Your task to perform on an android device: Search for "panasonic triple a" on walmart.com, select the first entry, add it to the cart, then select checkout. Image 0: 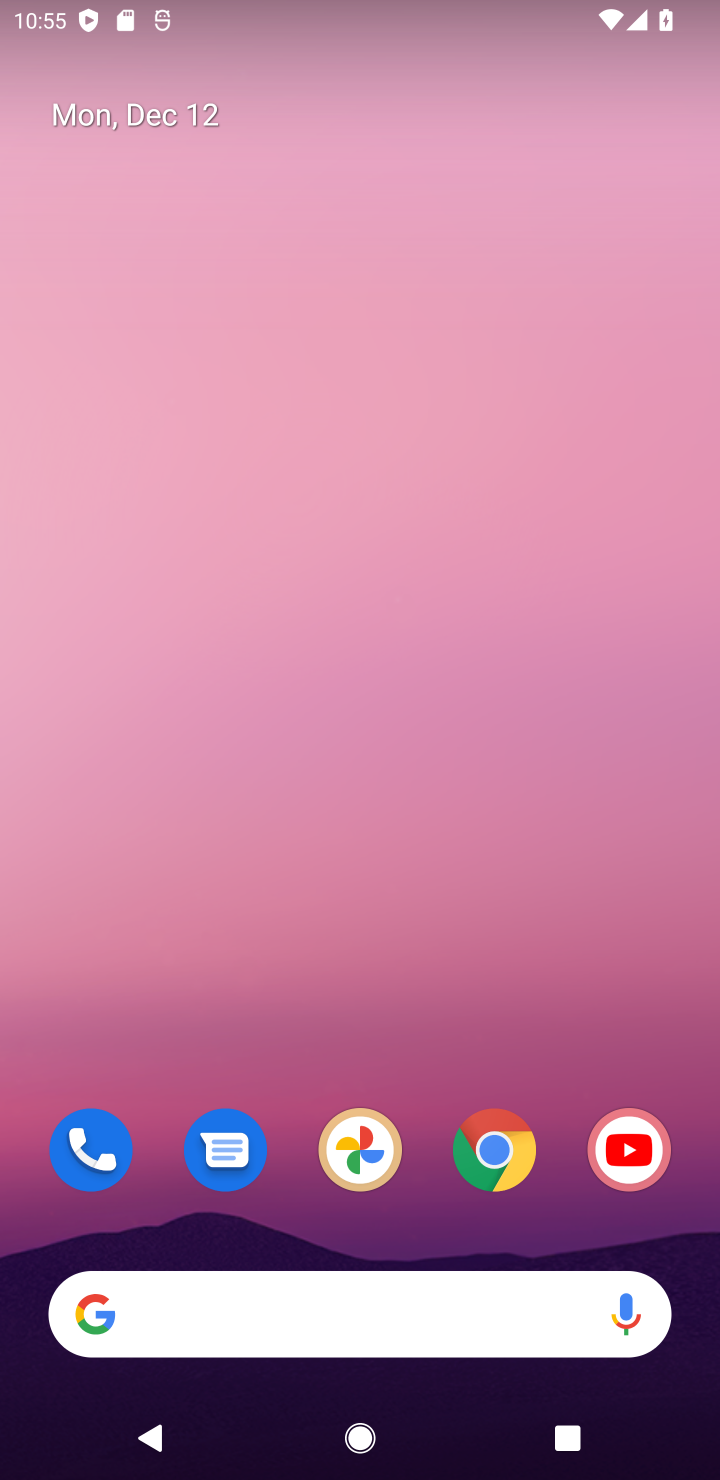
Step 0: click (498, 1161)
Your task to perform on an android device: Search for "panasonic triple a" on walmart.com, select the first entry, add it to the cart, then select checkout. Image 1: 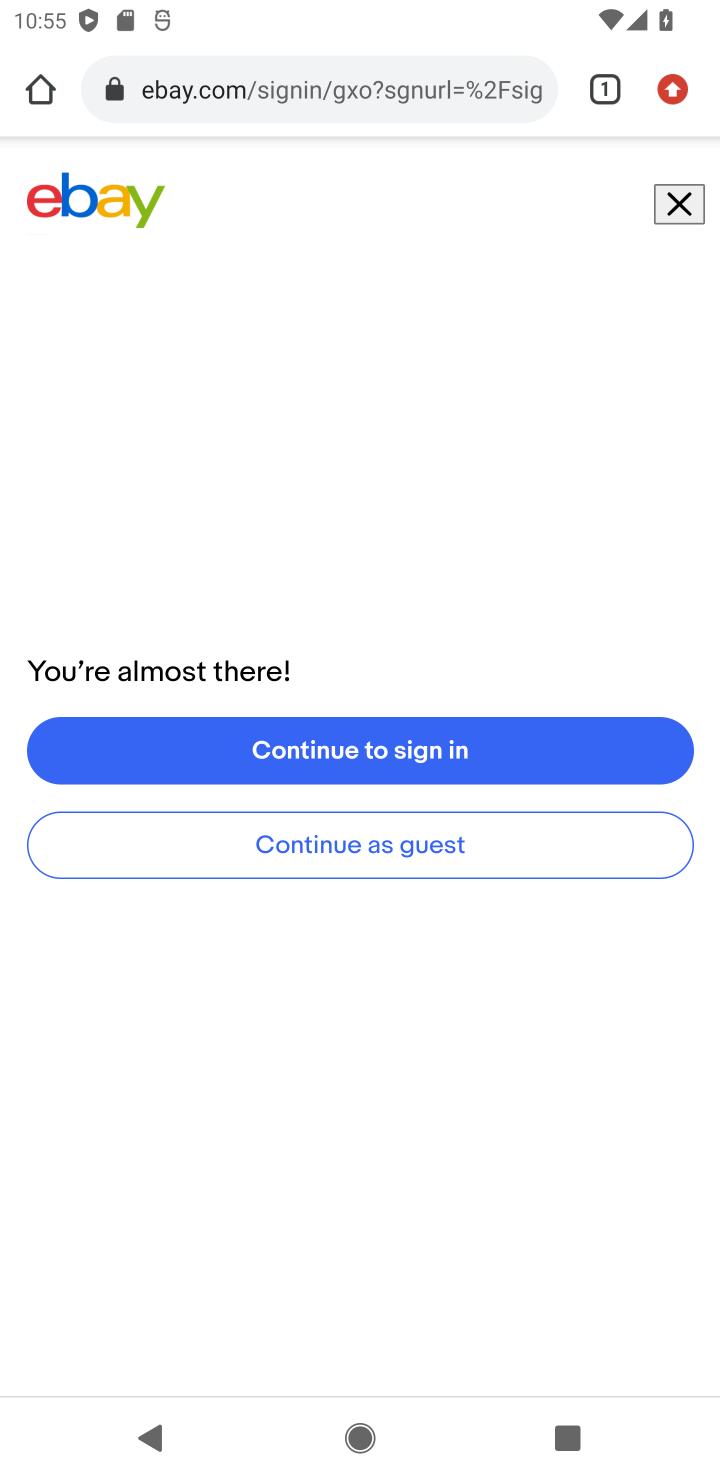
Step 1: click (251, 86)
Your task to perform on an android device: Search for "panasonic triple a" on walmart.com, select the first entry, add it to the cart, then select checkout. Image 2: 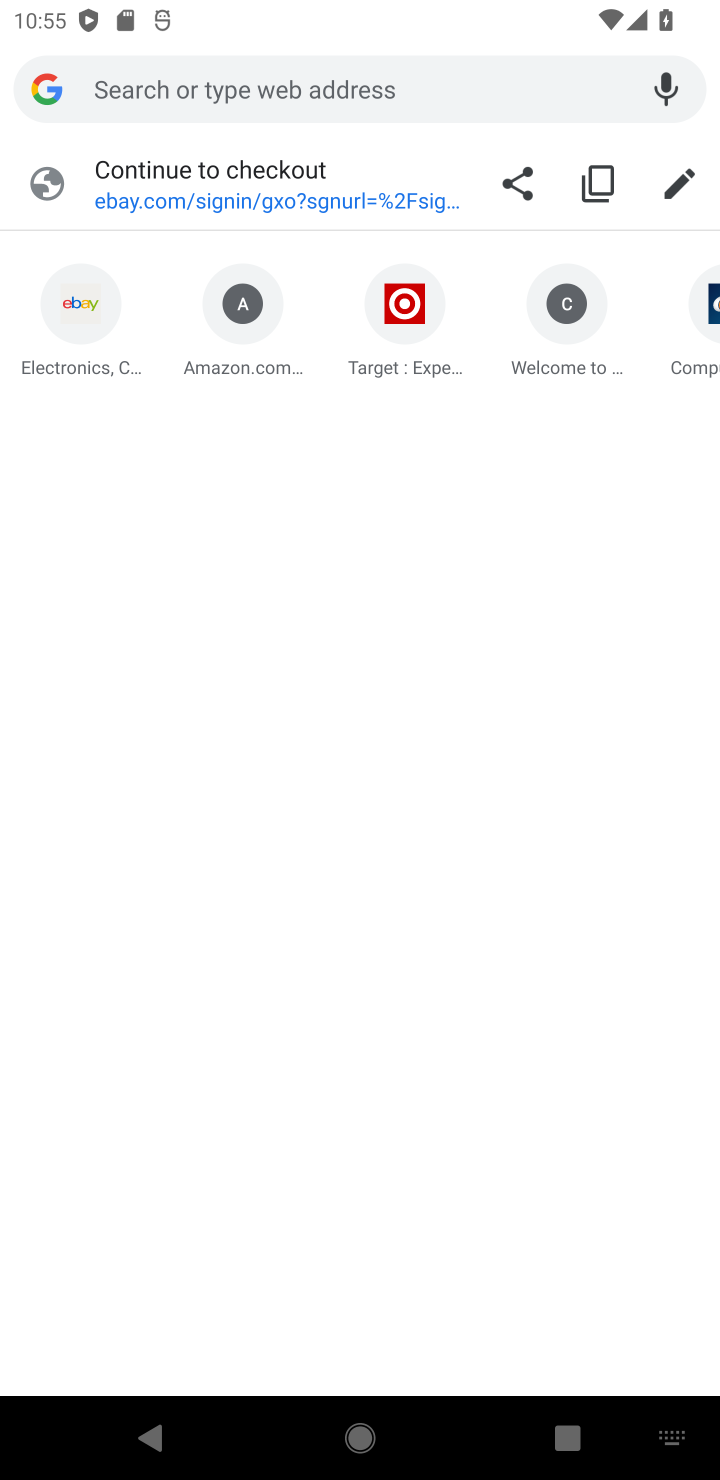
Step 2: type "walmart.com"
Your task to perform on an android device: Search for "panasonic triple a" on walmart.com, select the first entry, add it to the cart, then select checkout. Image 3: 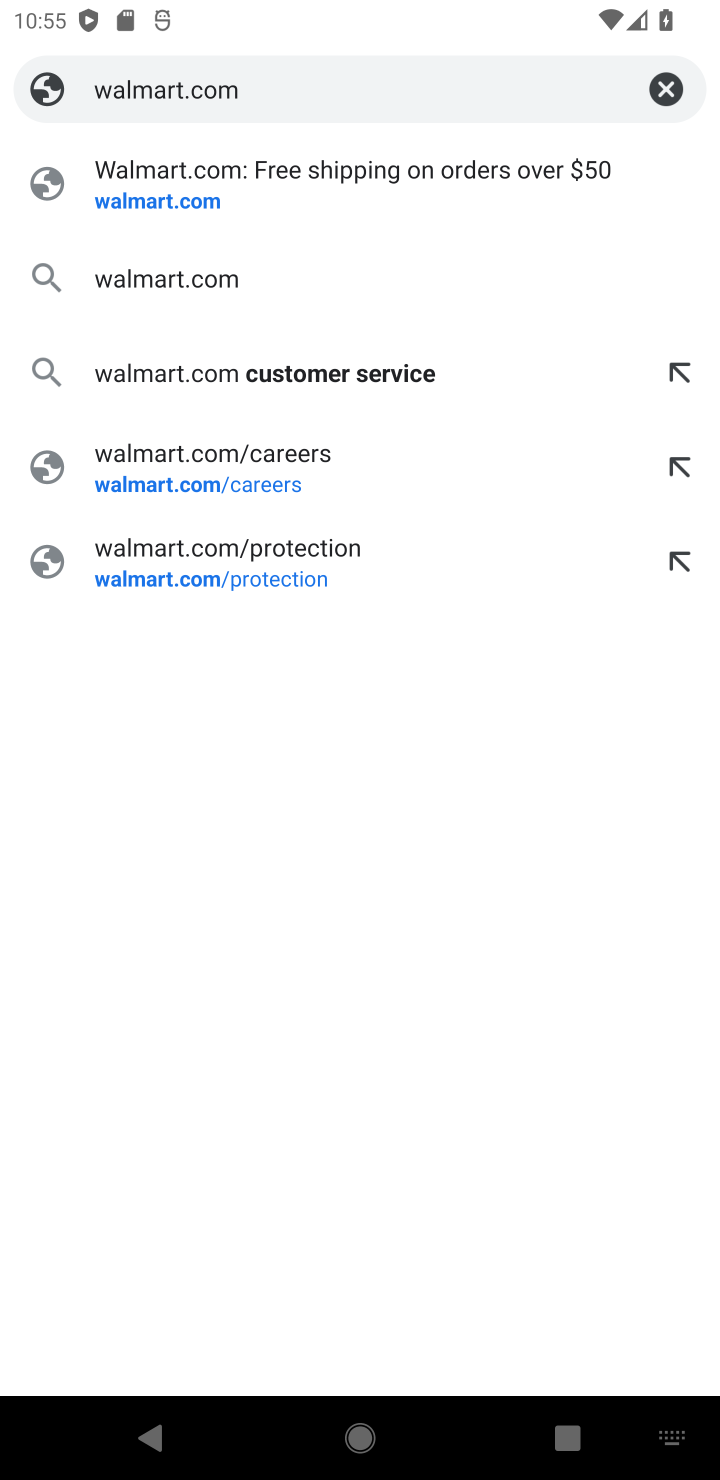
Step 3: click (146, 210)
Your task to perform on an android device: Search for "panasonic triple a" on walmart.com, select the first entry, add it to the cart, then select checkout. Image 4: 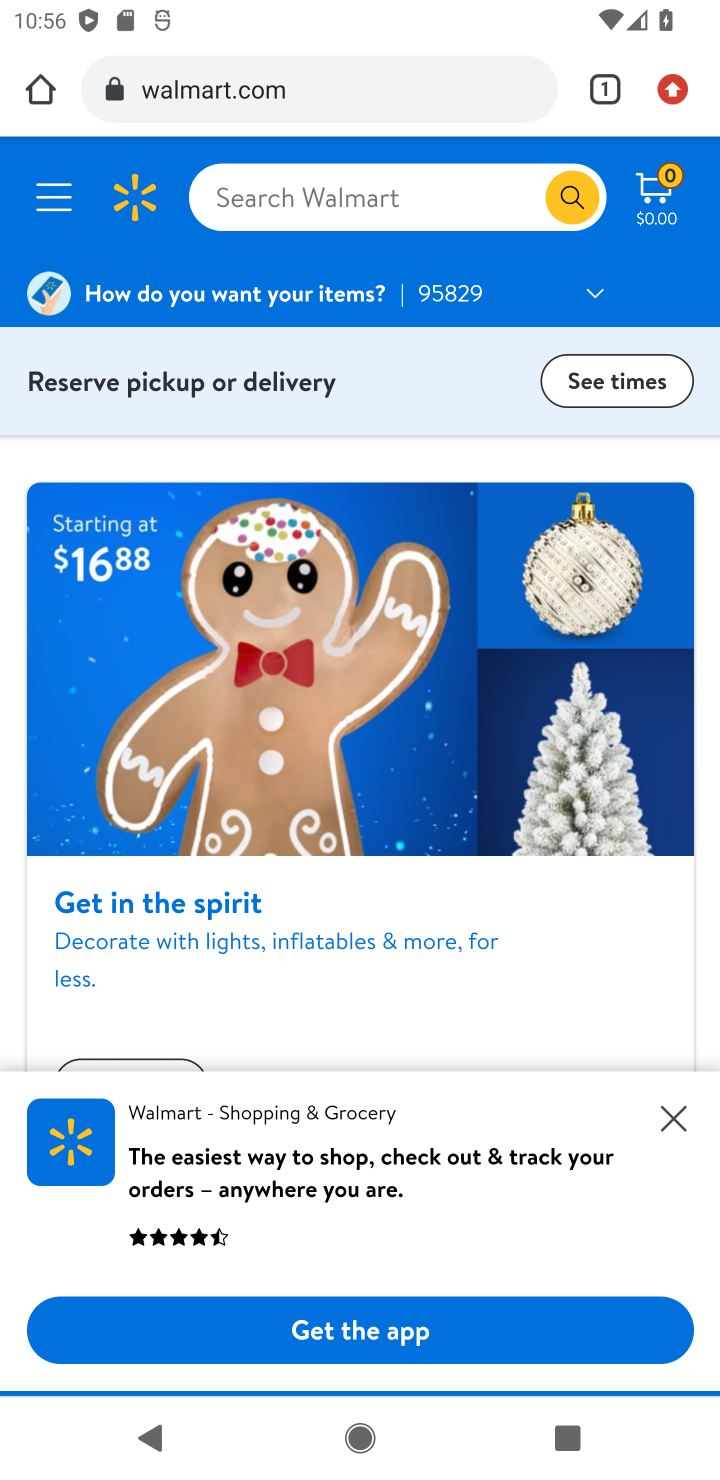
Step 4: click (277, 193)
Your task to perform on an android device: Search for "panasonic triple a" on walmart.com, select the first entry, add it to the cart, then select checkout. Image 5: 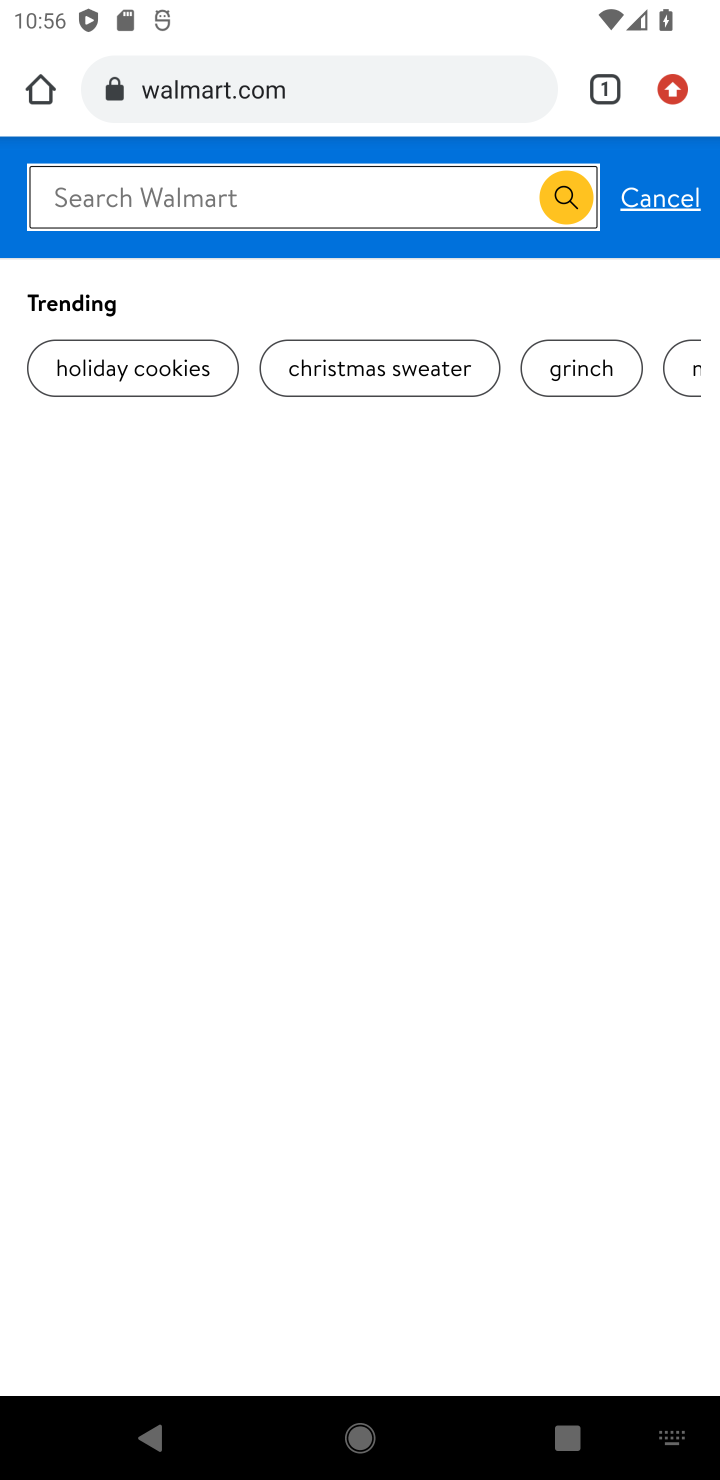
Step 5: type "panasonic triple a"
Your task to perform on an android device: Search for "panasonic triple a" on walmart.com, select the first entry, add it to the cart, then select checkout. Image 6: 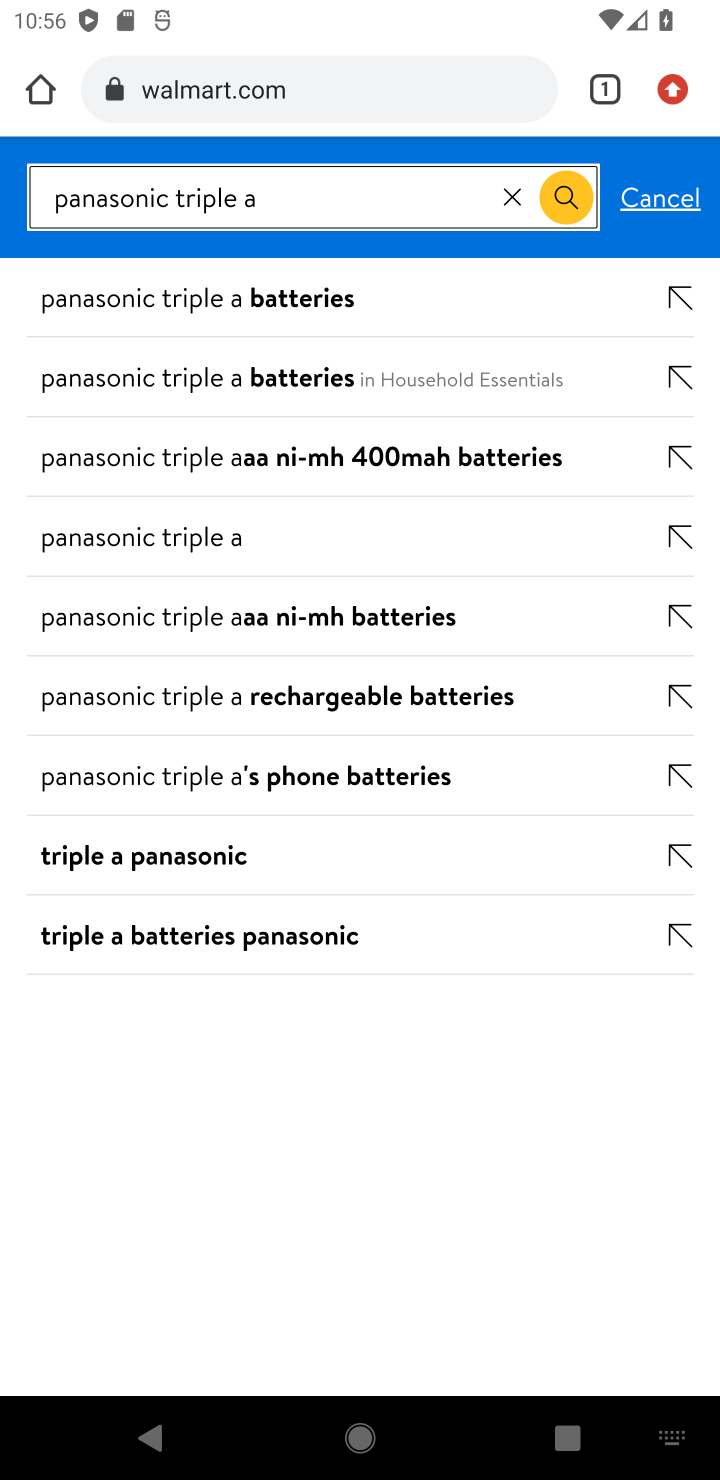
Step 6: click (199, 311)
Your task to perform on an android device: Search for "panasonic triple a" on walmart.com, select the first entry, add it to the cart, then select checkout. Image 7: 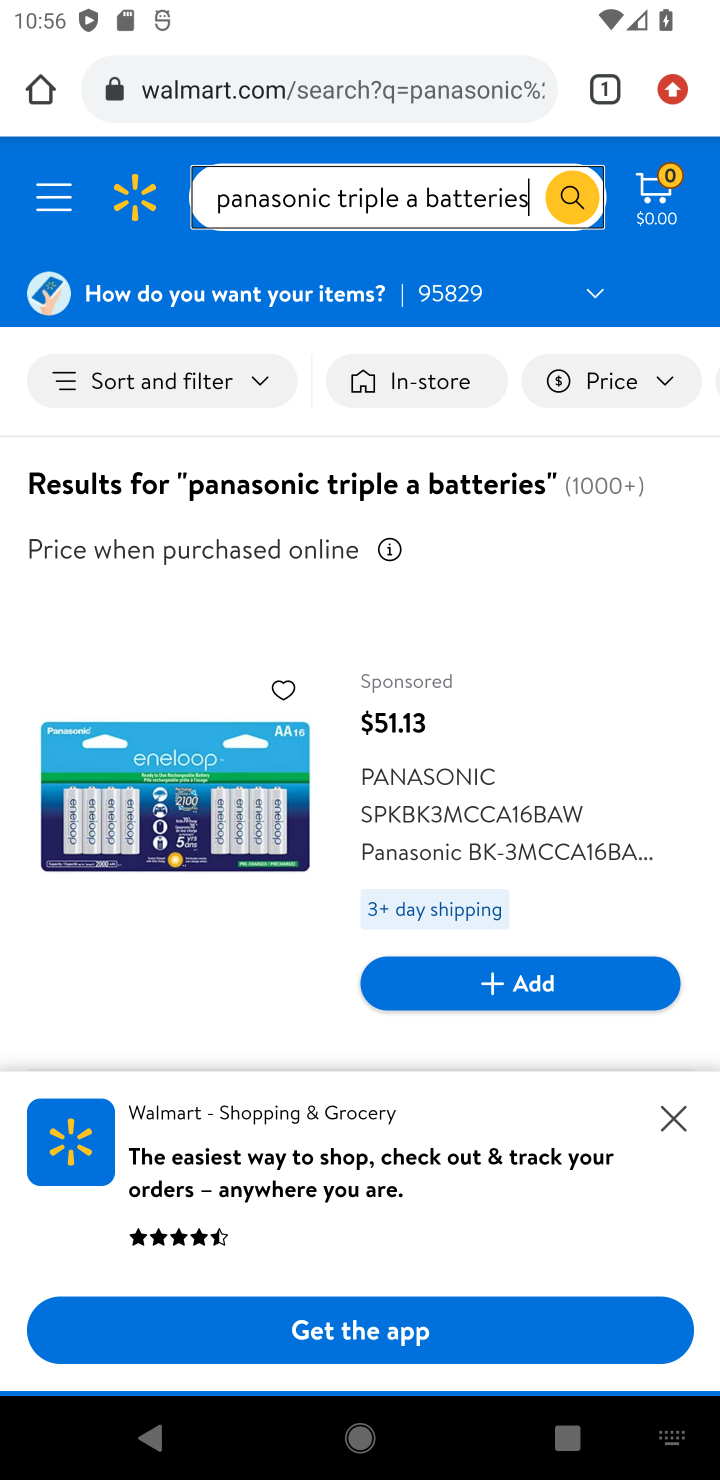
Step 7: click (402, 785)
Your task to perform on an android device: Search for "panasonic triple a" on walmart.com, select the first entry, add it to the cart, then select checkout. Image 8: 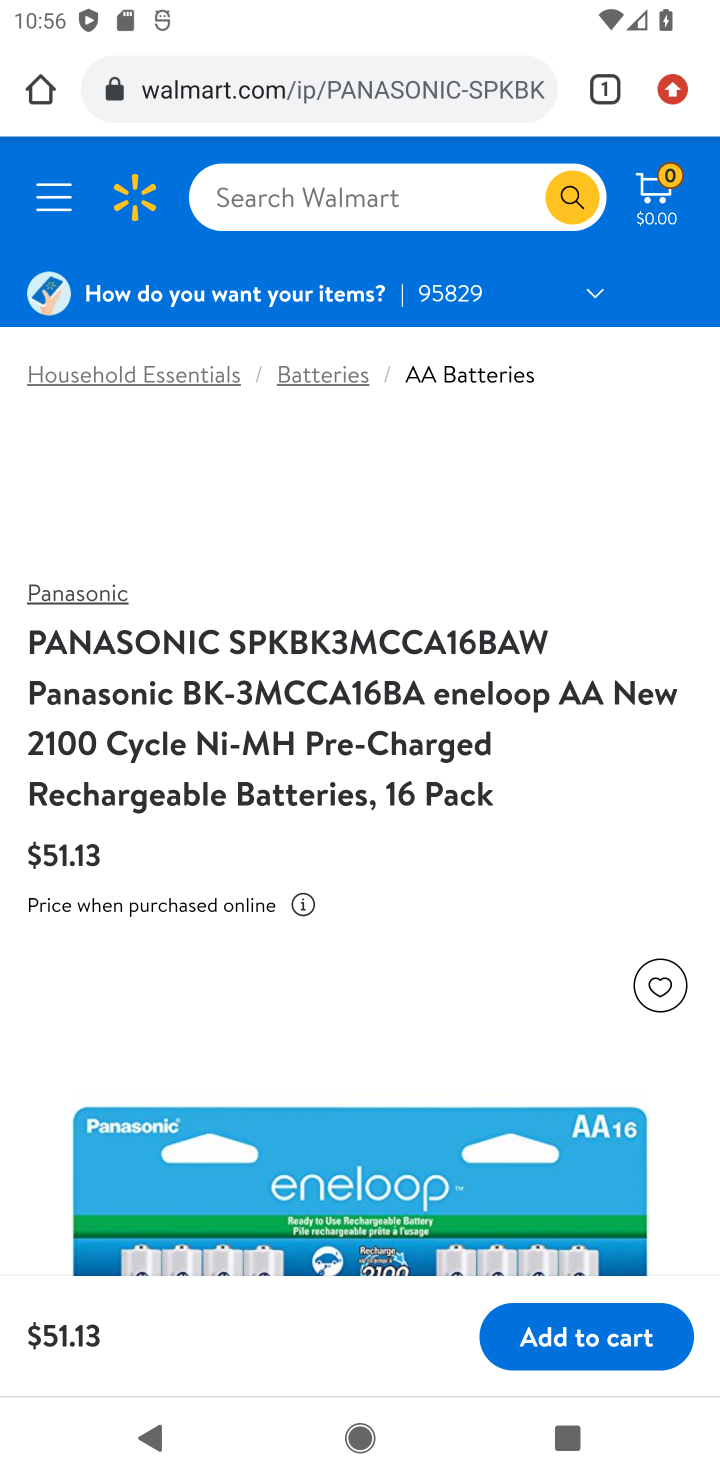
Step 8: task complete